Your task to perform on an android device: open device folders in google photos Image 0: 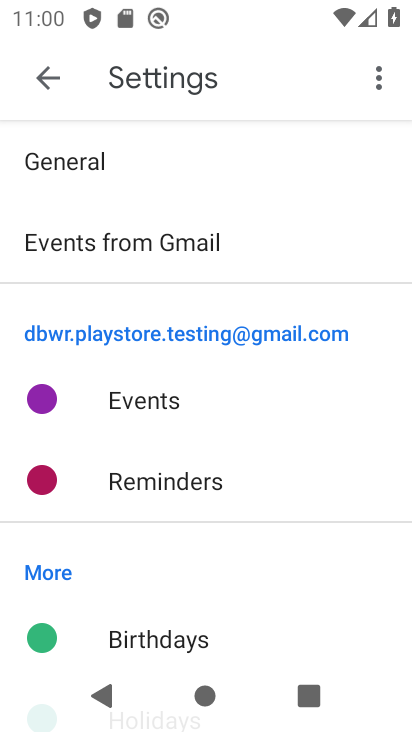
Step 0: press home button
Your task to perform on an android device: open device folders in google photos Image 1: 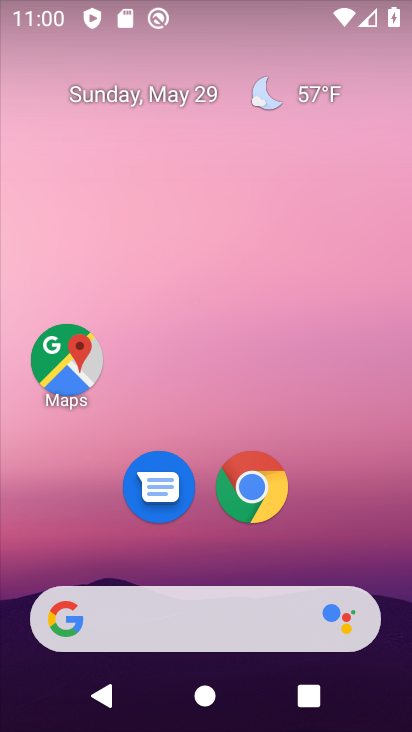
Step 1: drag from (95, 509) to (271, 128)
Your task to perform on an android device: open device folders in google photos Image 2: 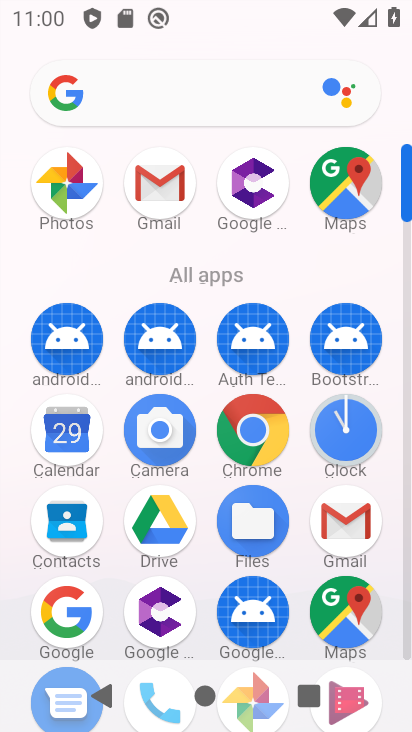
Step 2: drag from (208, 632) to (272, 361)
Your task to perform on an android device: open device folders in google photos Image 3: 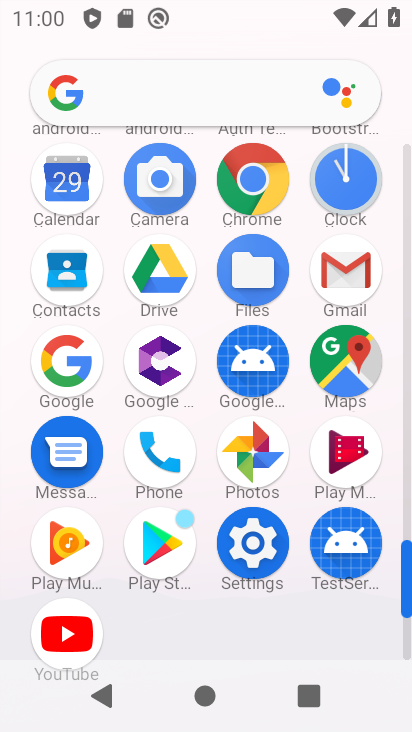
Step 3: click (253, 459)
Your task to perform on an android device: open device folders in google photos Image 4: 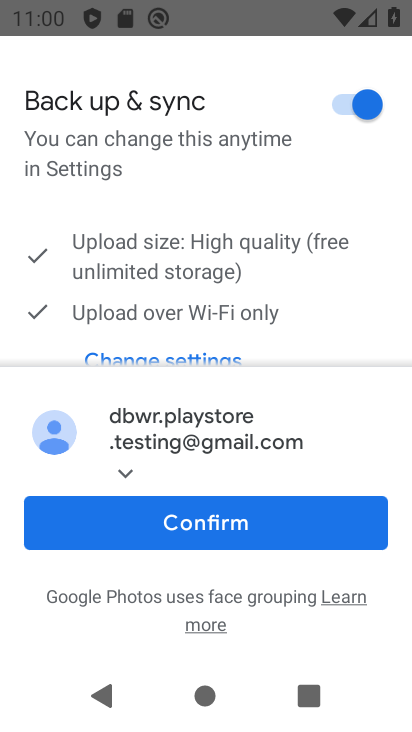
Step 4: click (285, 531)
Your task to perform on an android device: open device folders in google photos Image 5: 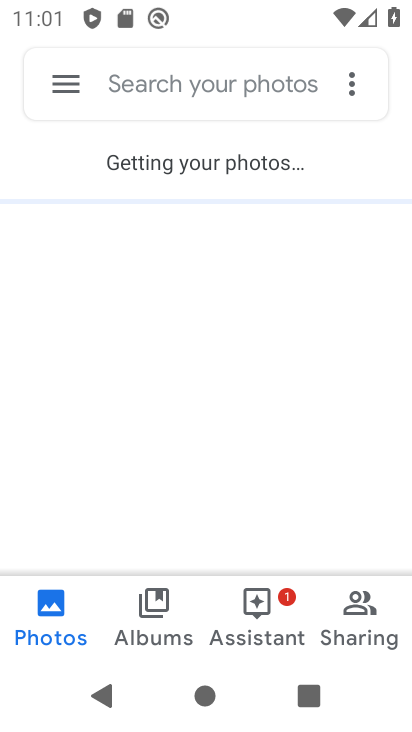
Step 5: click (74, 80)
Your task to perform on an android device: open device folders in google photos Image 6: 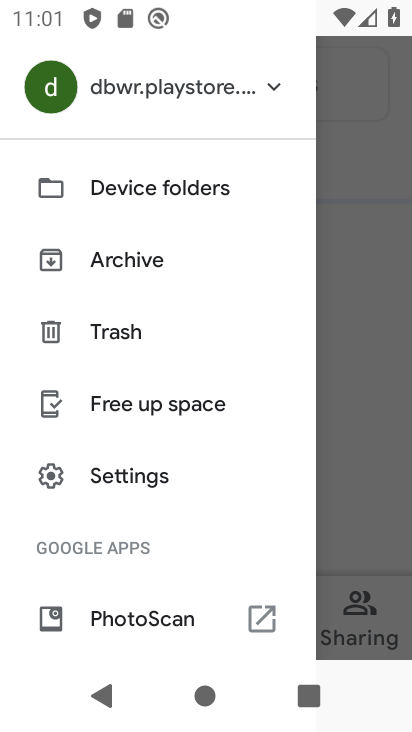
Step 6: click (182, 191)
Your task to perform on an android device: open device folders in google photos Image 7: 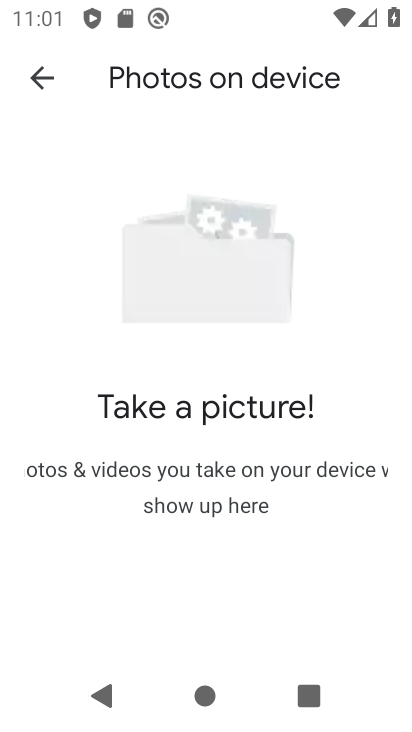
Step 7: task complete